Your task to perform on an android device: turn on wifi Image 0: 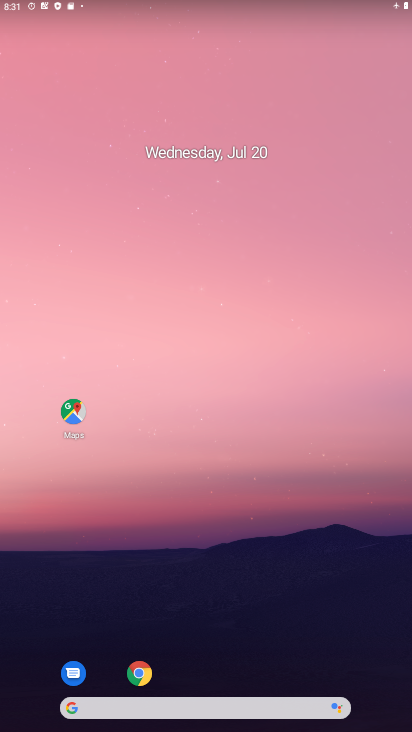
Step 0: drag from (378, 673) to (261, 259)
Your task to perform on an android device: turn on wifi Image 1: 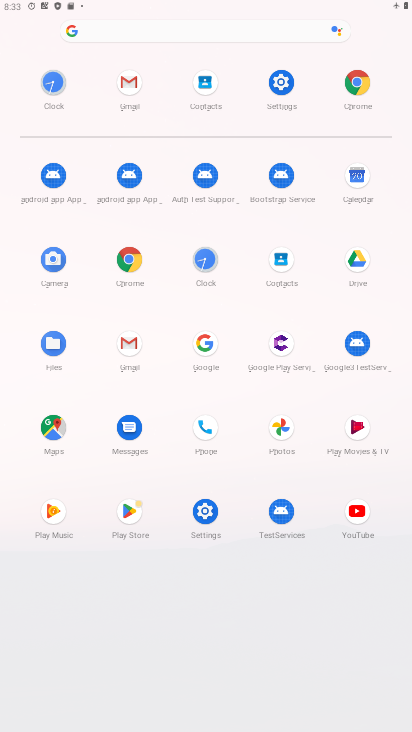
Step 1: drag from (152, 5) to (174, 614)
Your task to perform on an android device: turn on wifi Image 2: 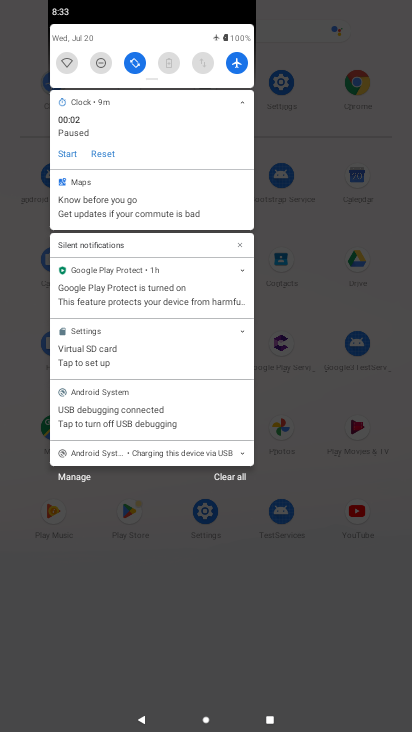
Step 2: click (63, 58)
Your task to perform on an android device: turn on wifi Image 3: 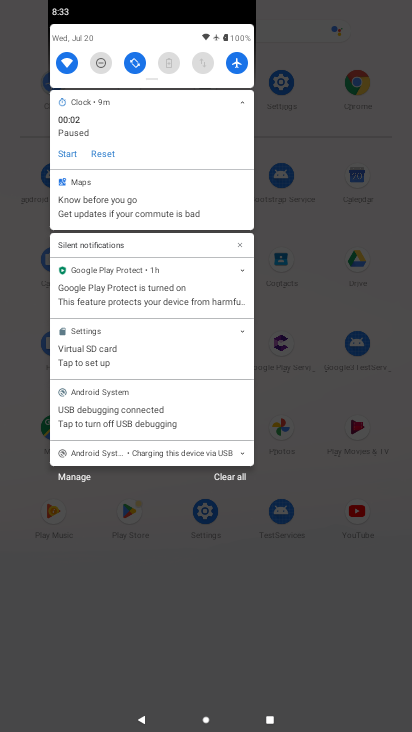
Step 3: task complete